Your task to perform on an android device: open wifi settings Image 0: 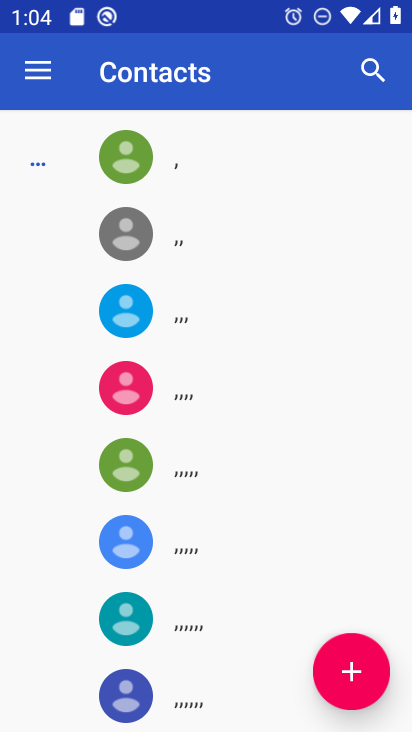
Step 0: press home button
Your task to perform on an android device: open wifi settings Image 1: 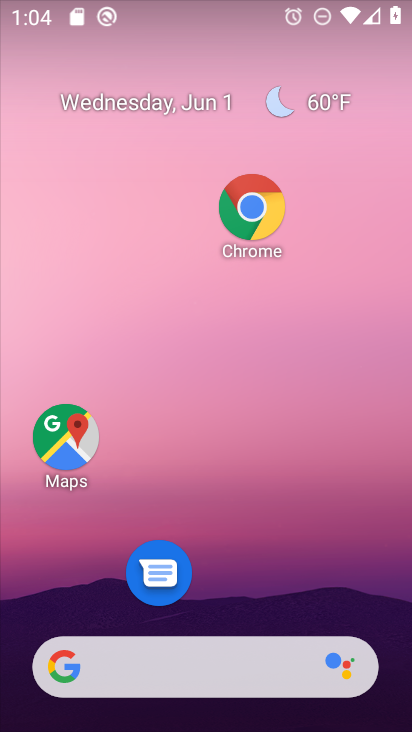
Step 1: drag from (220, 615) to (196, 229)
Your task to perform on an android device: open wifi settings Image 2: 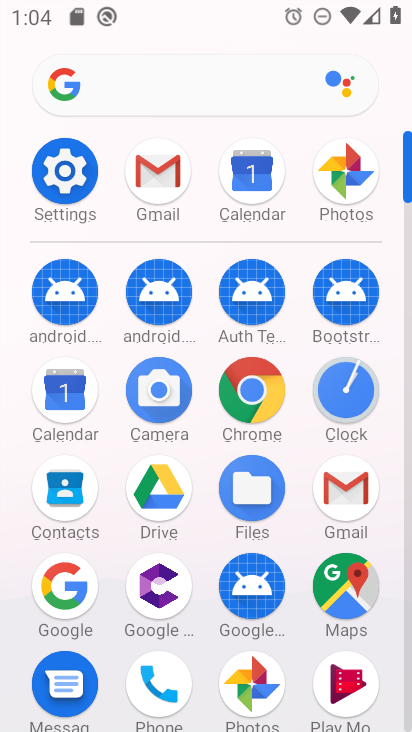
Step 2: click (63, 184)
Your task to perform on an android device: open wifi settings Image 3: 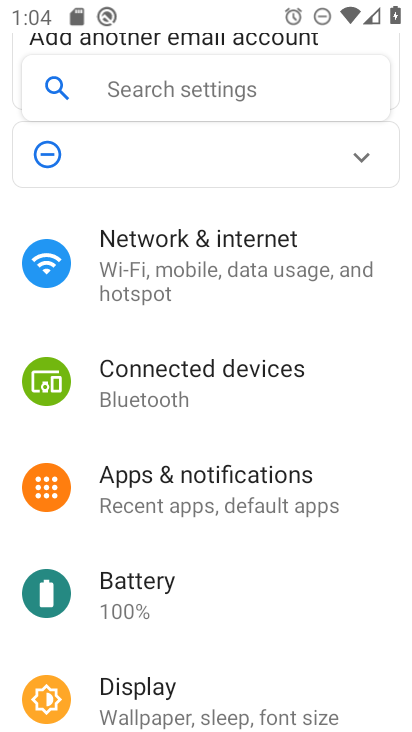
Step 3: click (208, 221)
Your task to perform on an android device: open wifi settings Image 4: 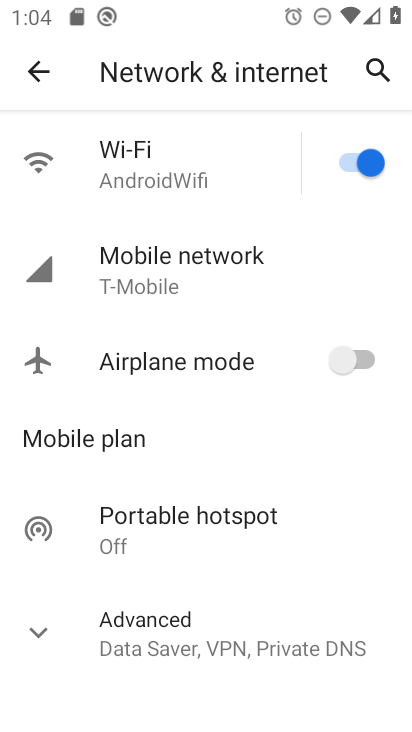
Step 4: click (164, 165)
Your task to perform on an android device: open wifi settings Image 5: 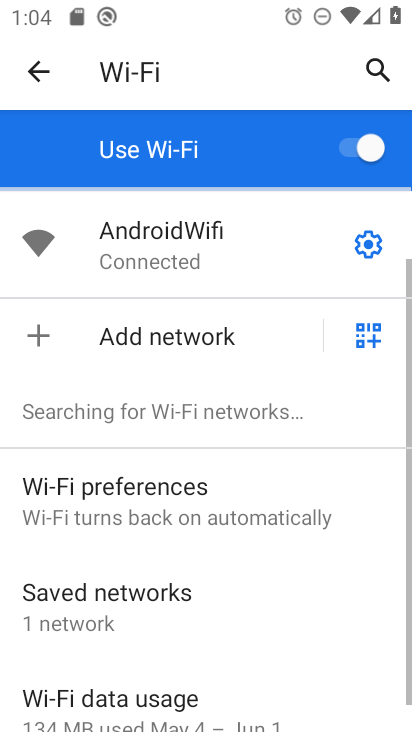
Step 5: task complete